Your task to perform on an android device: Open calendar and show me the first week of next month Image 0: 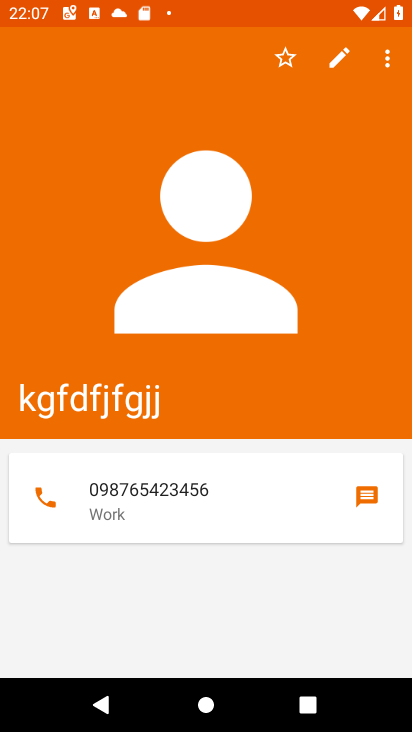
Step 0: press home button
Your task to perform on an android device: Open calendar and show me the first week of next month Image 1: 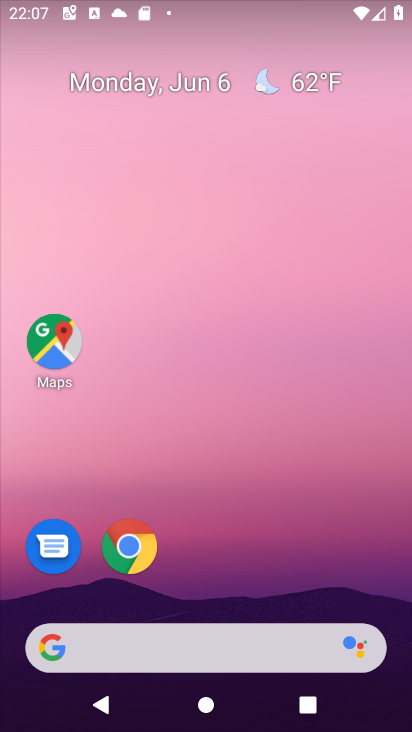
Step 1: drag from (395, 622) to (352, 198)
Your task to perform on an android device: Open calendar and show me the first week of next month Image 2: 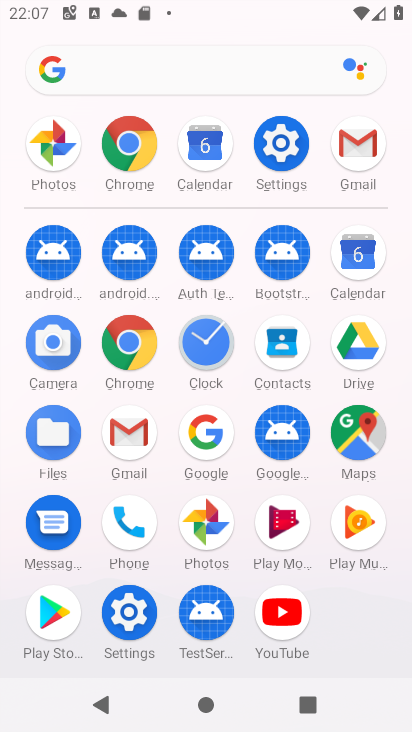
Step 2: click (358, 253)
Your task to perform on an android device: Open calendar and show me the first week of next month Image 3: 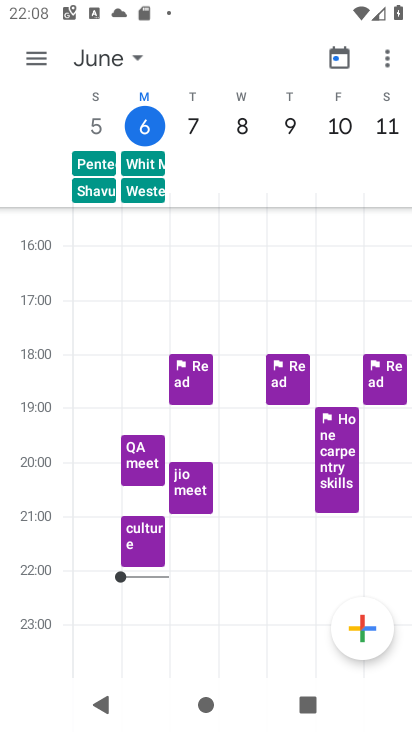
Step 3: click (136, 63)
Your task to perform on an android device: Open calendar and show me the first week of next month Image 4: 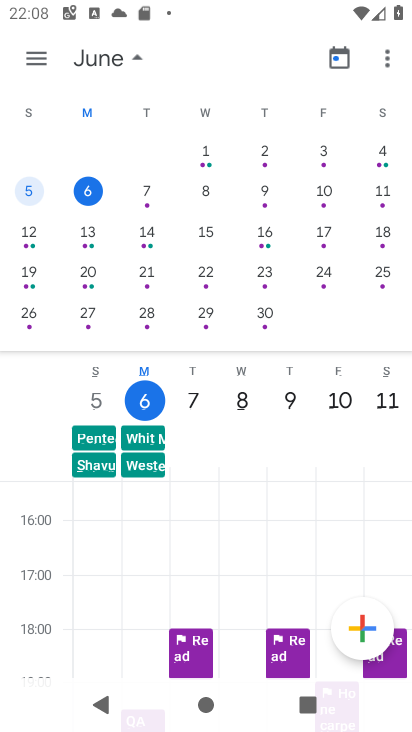
Step 4: drag from (391, 260) to (149, 233)
Your task to perform on an android device: Open calendar and show me the first week of next month Image 5: 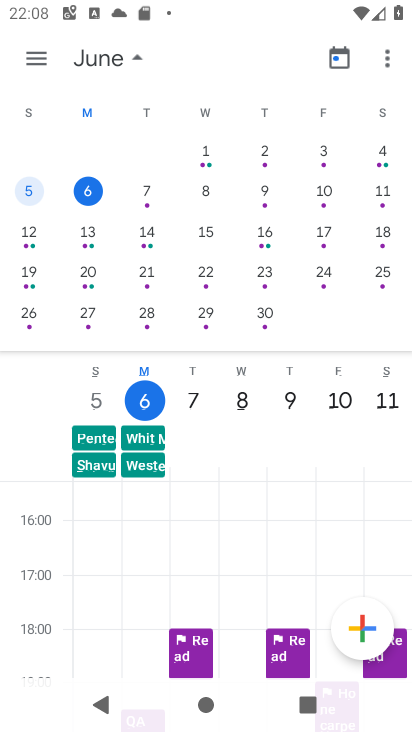
Step 5: drag from (380, 239) to (54, 201)
Your task to perform on an android device: Open calendar and show me the first week of next month Image 6: 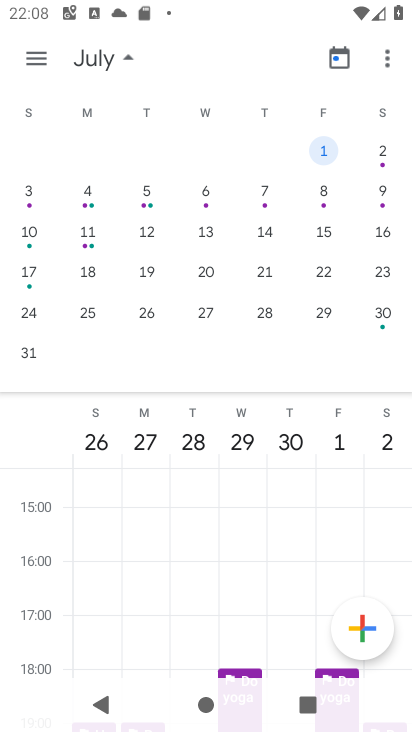
Step 6: click (31, 187)
Your task to perform on an android device: Open calendar and show me the first week of next month Image 7: 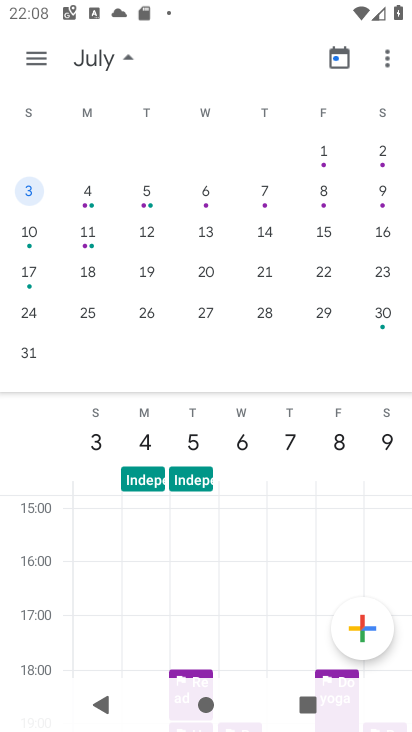
Step 7: task complete